Your task to perform on an android device: Go to eBay Image 0: 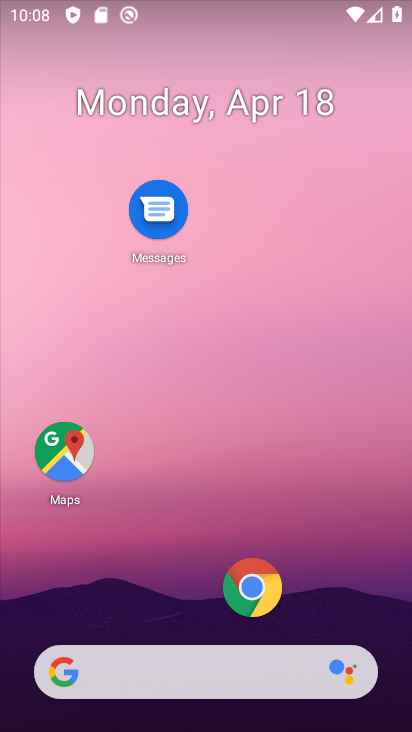
Step 0: click (265, 603)
Your task to perform on an android device: Go to eBay Image 1: 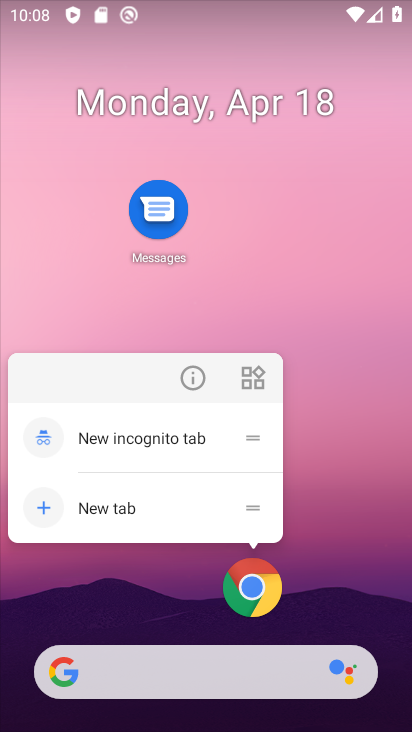
Step 1: click (264, 583)
Your task to perform on an android device: Go to eBay Image 2: 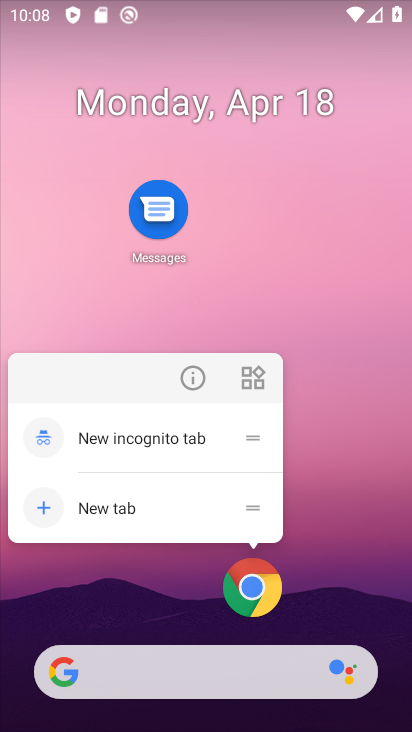
Step 2: click (263, 582)
Your task to perform on an android device: Go to eBay Image 3: 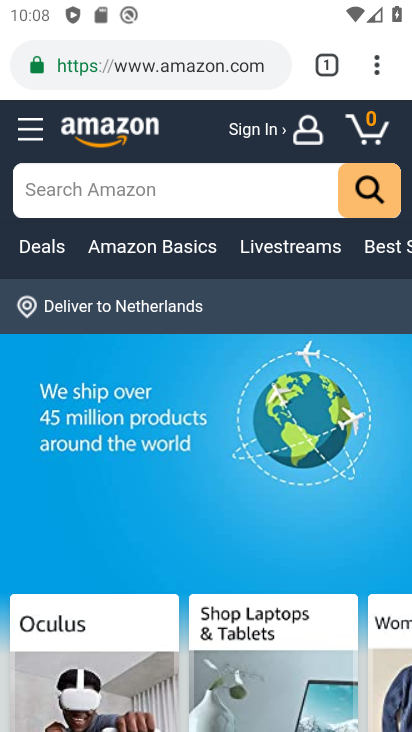
Step 3: click (137, 64)
Your task to perform on an android device: Go to eBay Image 4: 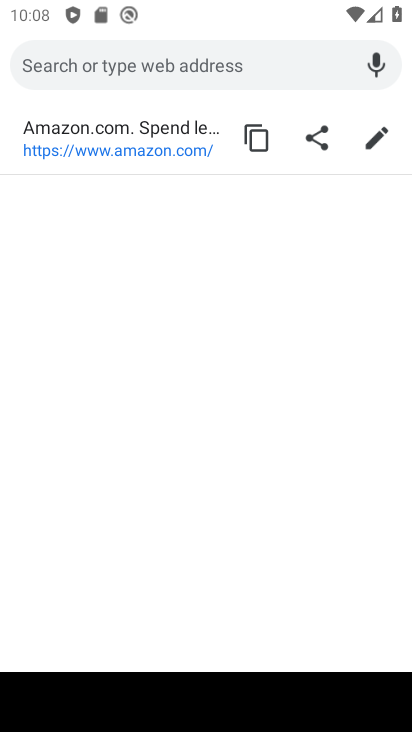
Step 4: type "eBay"
Your task to perform on an android device: Go to eBay Image 5: 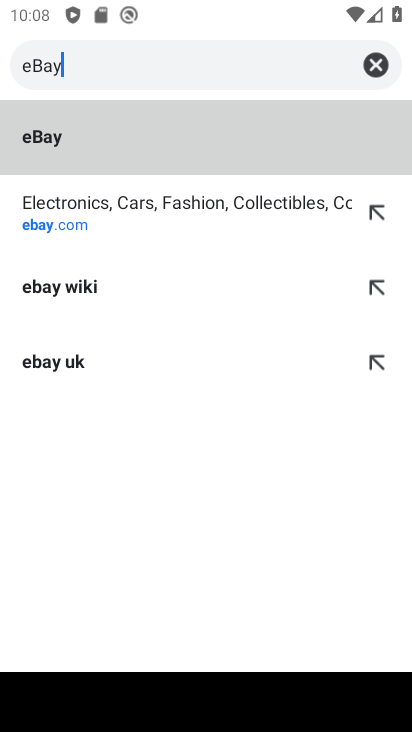
Step 5: click (147, 149)
Your task to perform on an android device: Go to eBay Image 6: 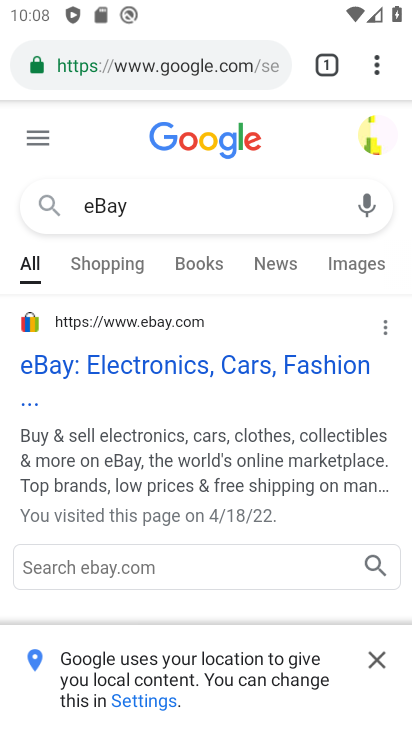
Step 6: task complete